Your task to perform on an android device: Open my contact list Image 0: 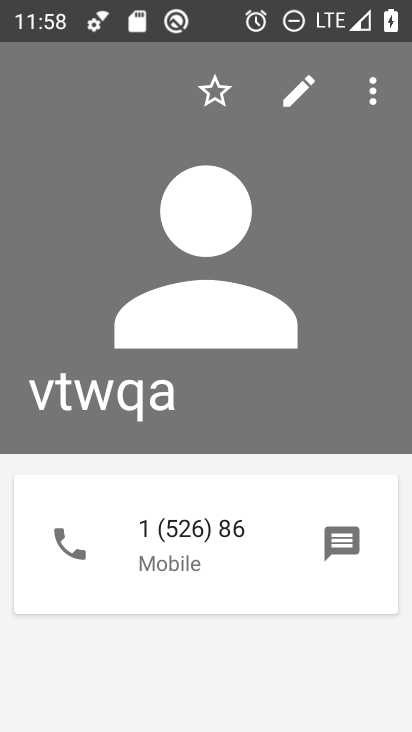
Step 0: press home button
Your task to perform on an android device: Open my contact list Image 1: 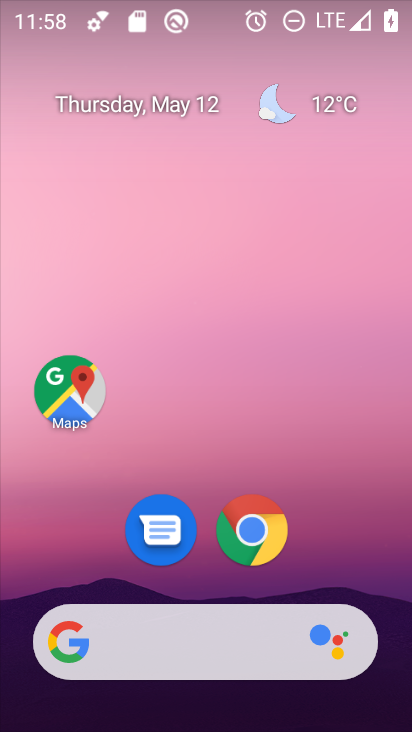
Step 1: drag from (187, 650) to (221, 195)
Your task to perform on an android device: Open my contact list Image 2: 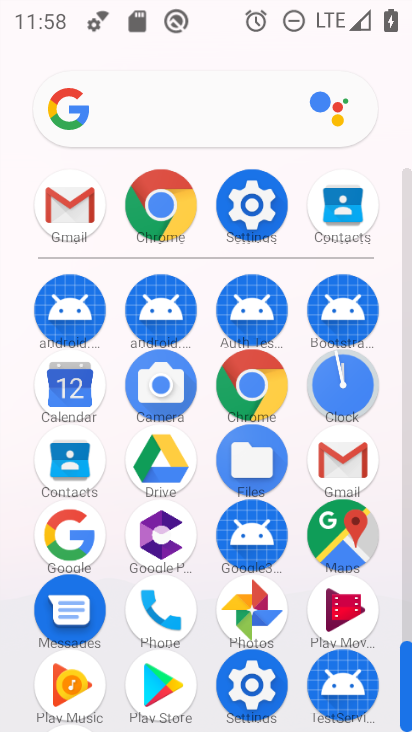
Step 2: click (81, 468)
Your task to perform on an android device: Open my contact list Image 3: 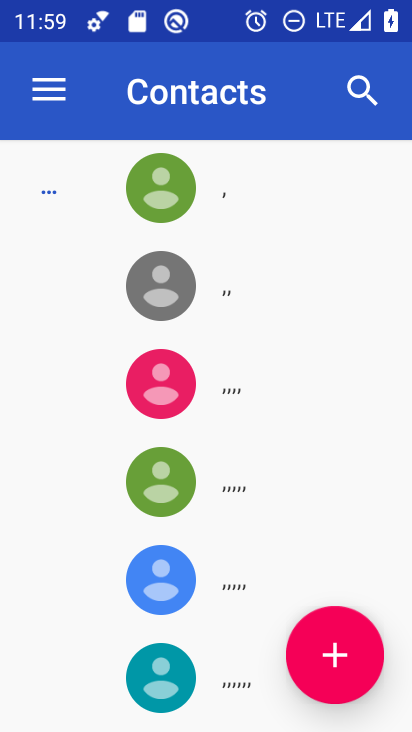
Step 3: task complete